Your task to perform on an android device: Search for "macbook pro" on amazon.com, select the first entry, add it to the cart, then select checkout. Image 0: 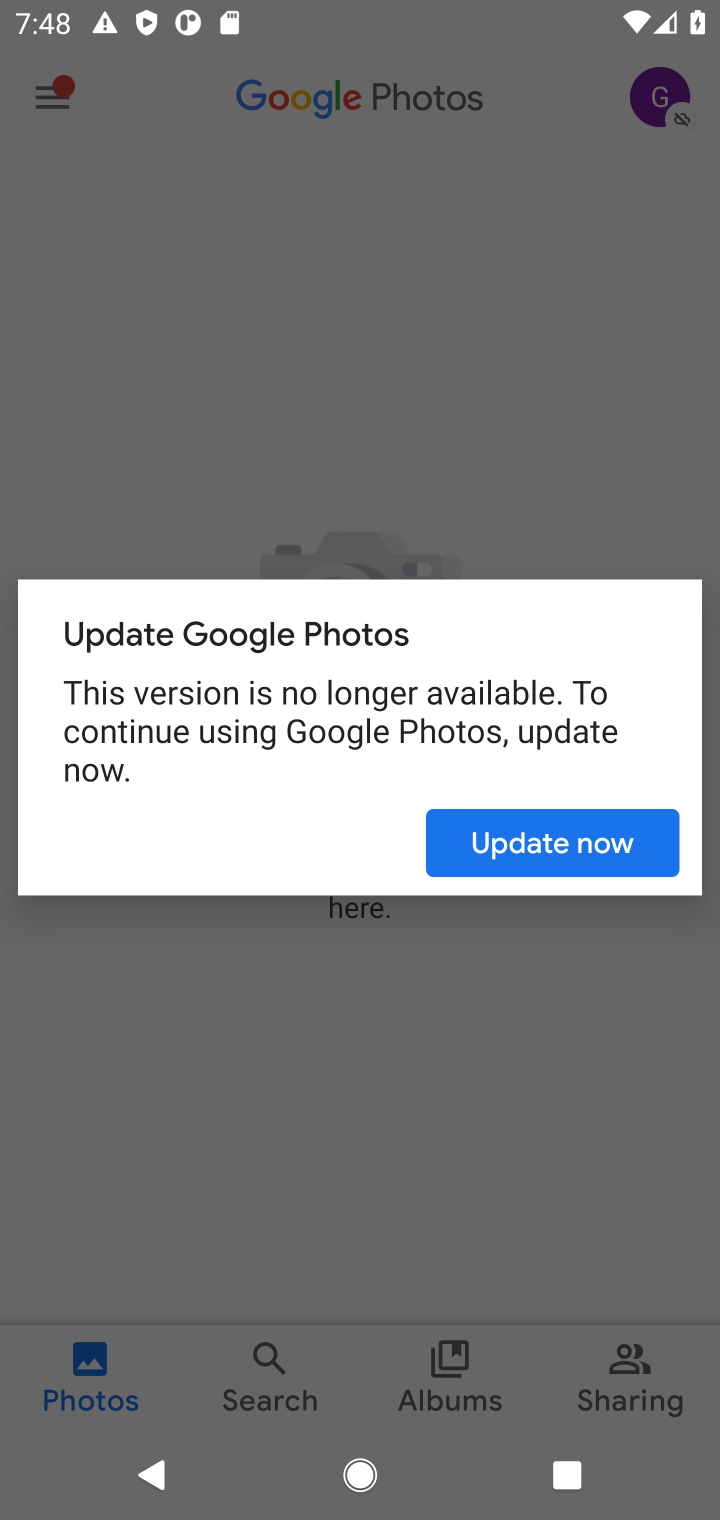
Step 0: press home button
Your task to perform on an android device: Search for "macbook pro" on amazon.com, select the first entry, add it to the cart, then select checkout. Image 1: 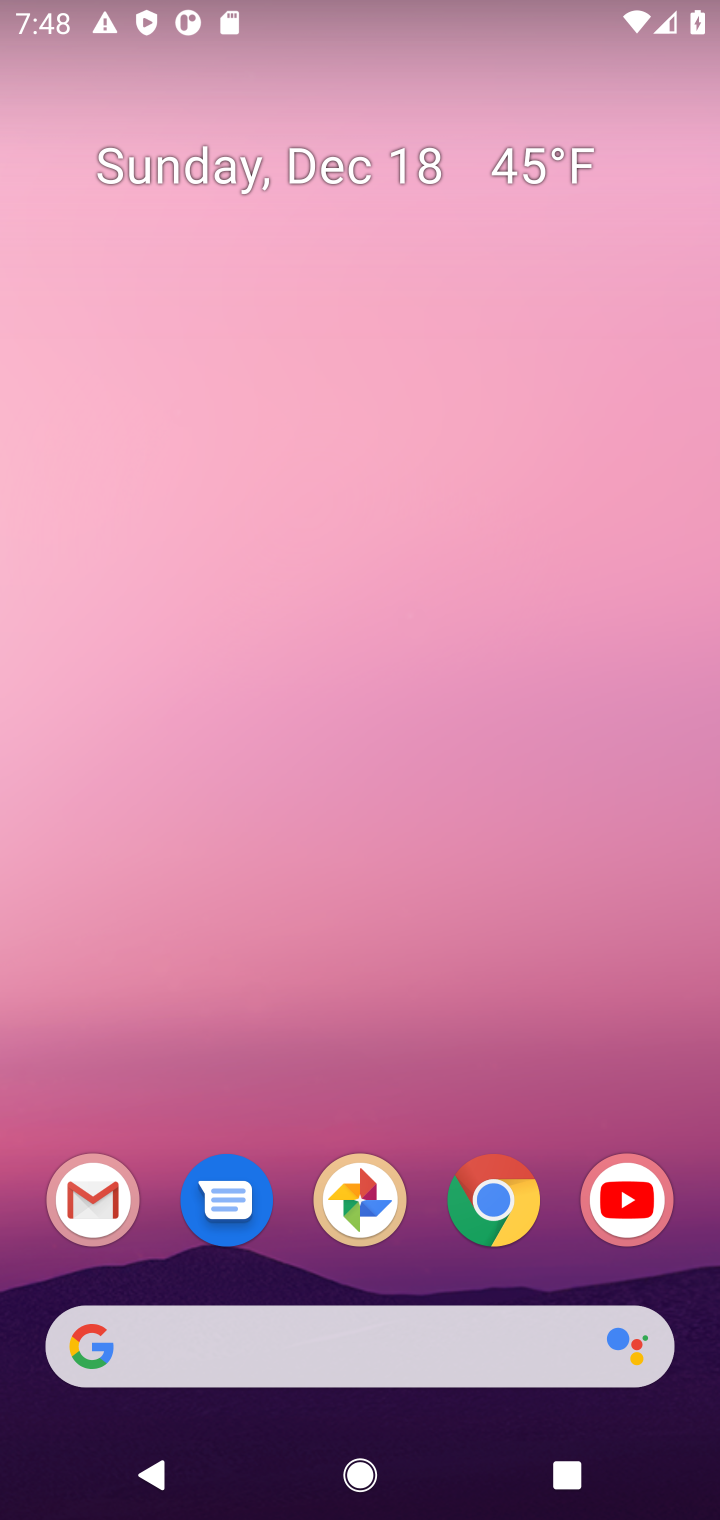
Step 1: click (494, 1204)
Your task to perform on an android device: Search for "macbook pro" on amazon.com, select the first entry, add it to the cart, then select checkout. Image 2: 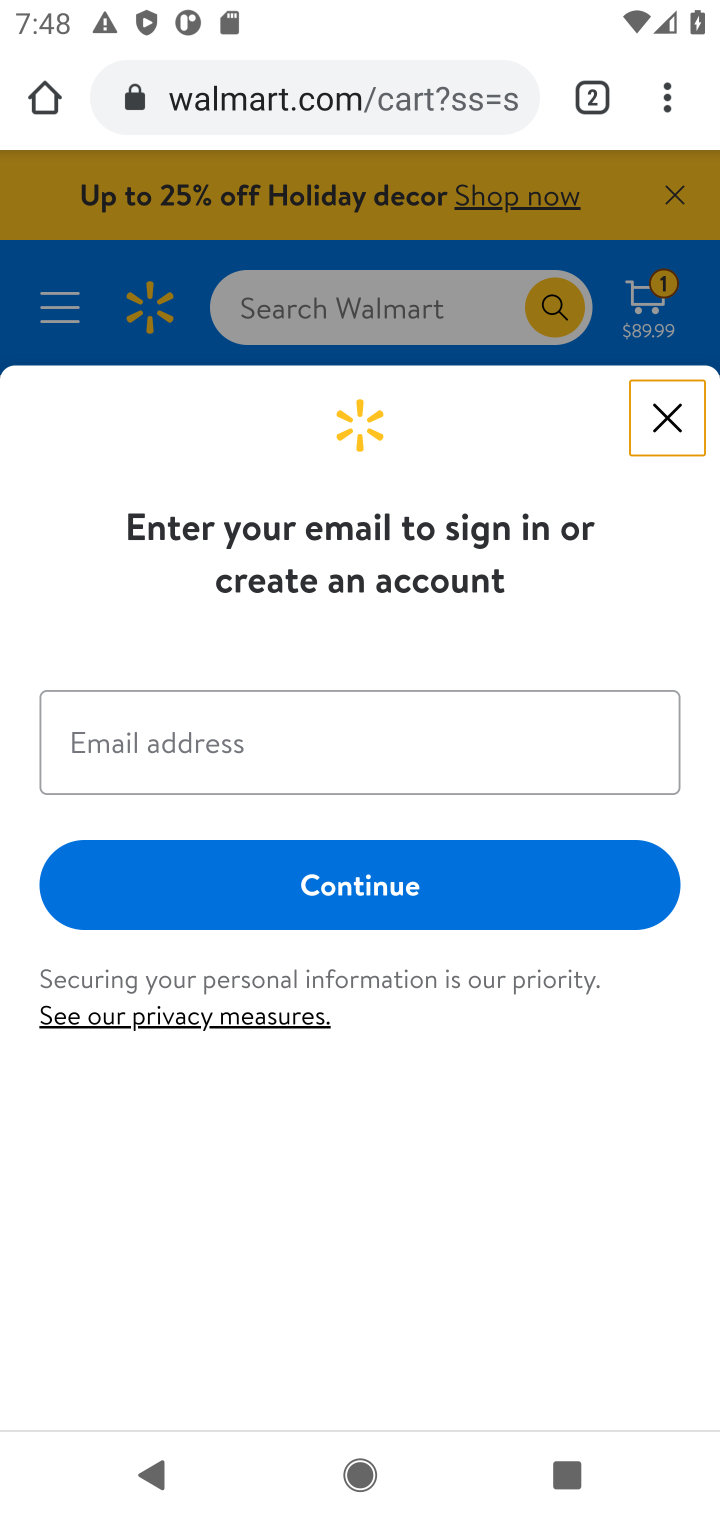
Step 2: click (281, 113)
Your task to perform on an android device: Search for "macbook pro" on amazon.com, select the first entry, add it to the cart, then select checkout. Image 3: 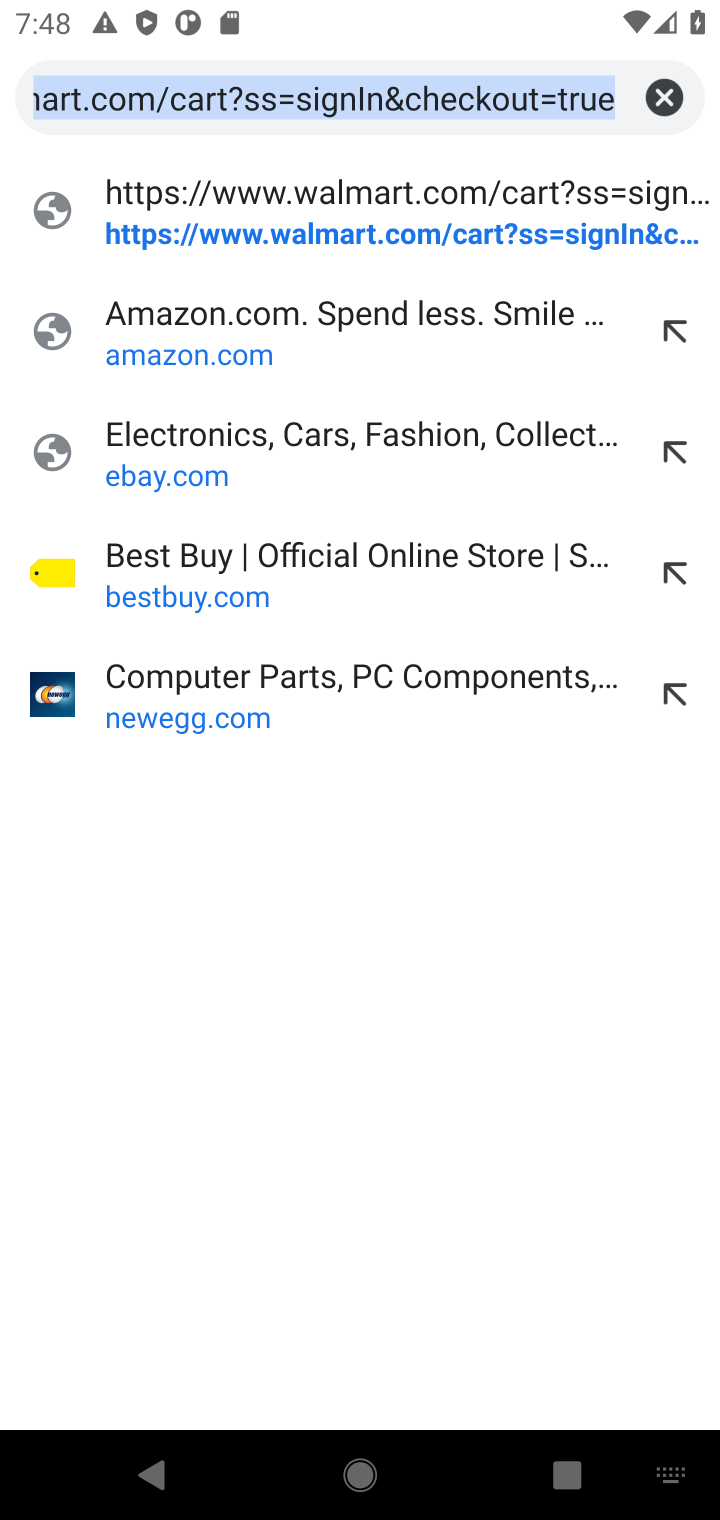
Step 3: click (175, 362)
Your task to perform on an android device: Search for "macbook pro" on amazon.com, select the first entry, add it to the cart, then select checkout. Image 4: 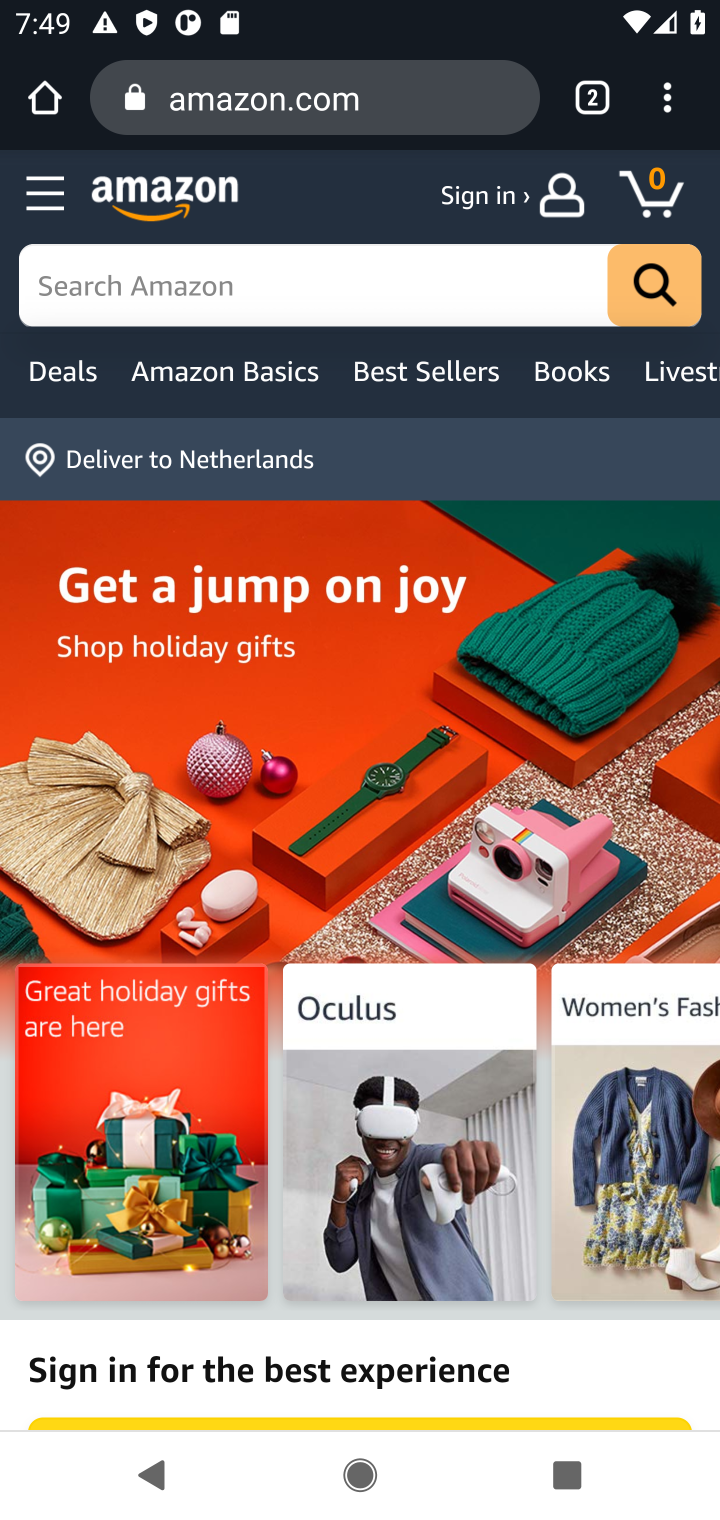
Step 4: click (87, 276)
Your task to perform on an android device: Search for "macbook pro" on amazon.com, select the first entry, add it to the cart, then select checkout. Image 5: 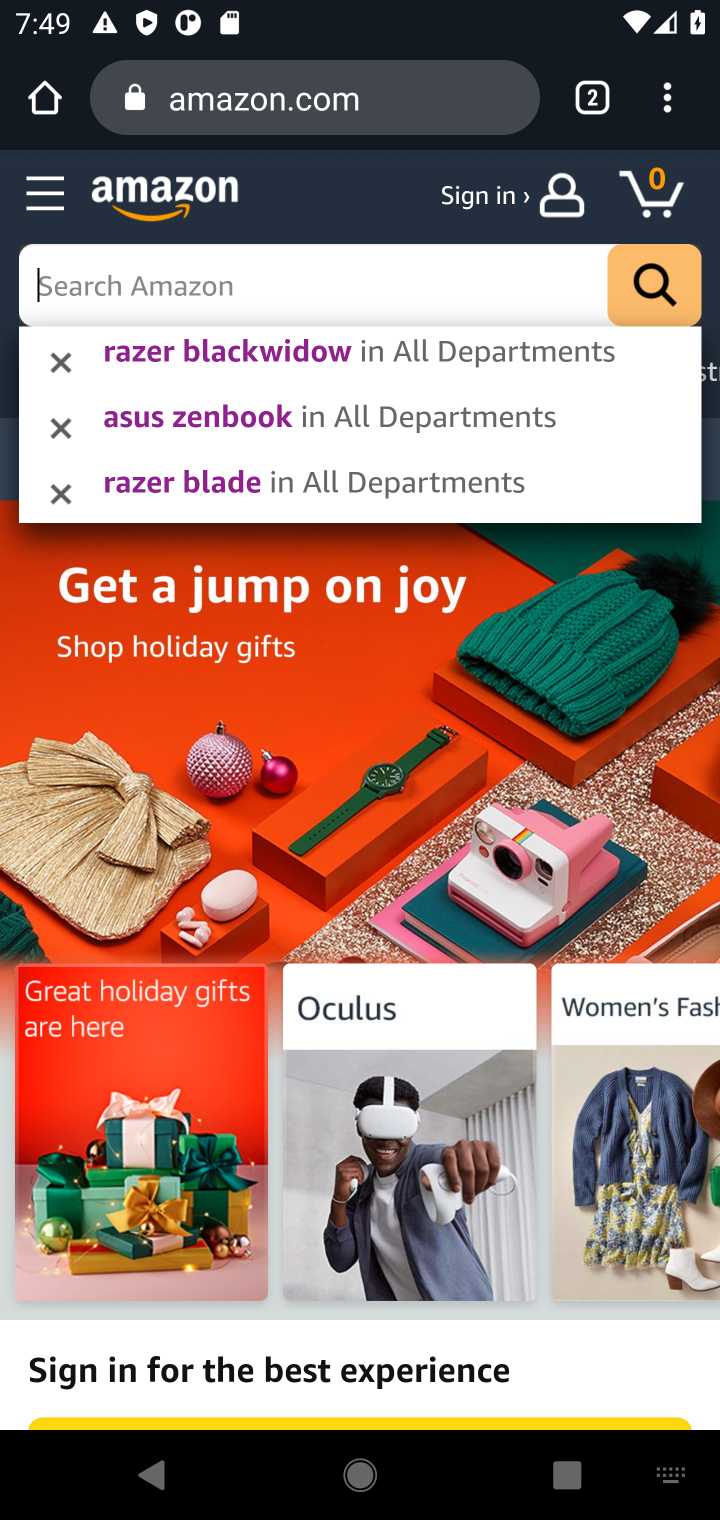
Step 5: type "macbook pro"
Your task to perform on an android device: Search for "macbook pro" on amazon.com, select the first entry, add it to the cart, then select checkout. Image 6: 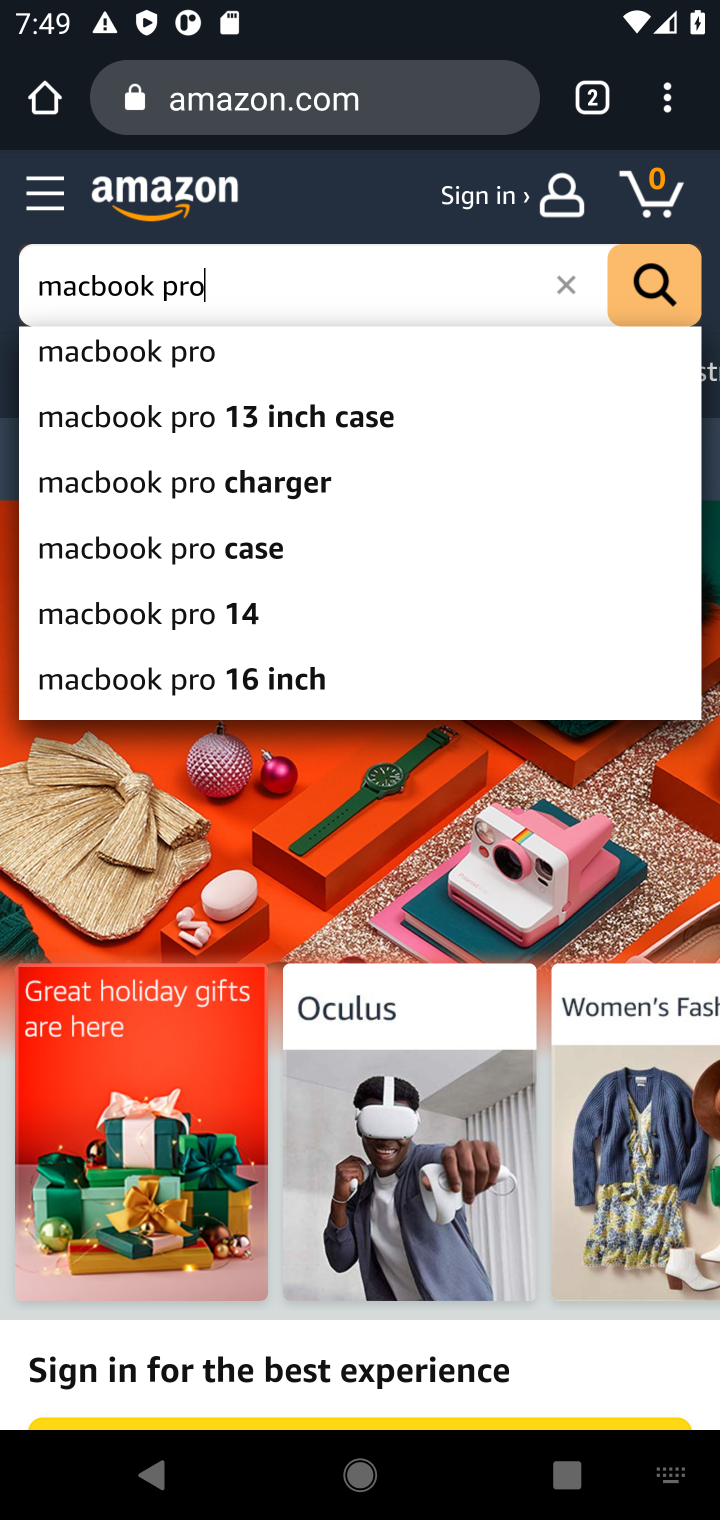
Step 6: click (135, 361)
Your task to perform on an android device: Search for "macbook pro" on amazon.com, select the first entry, add it to the cart, then select checkout. Image 7: 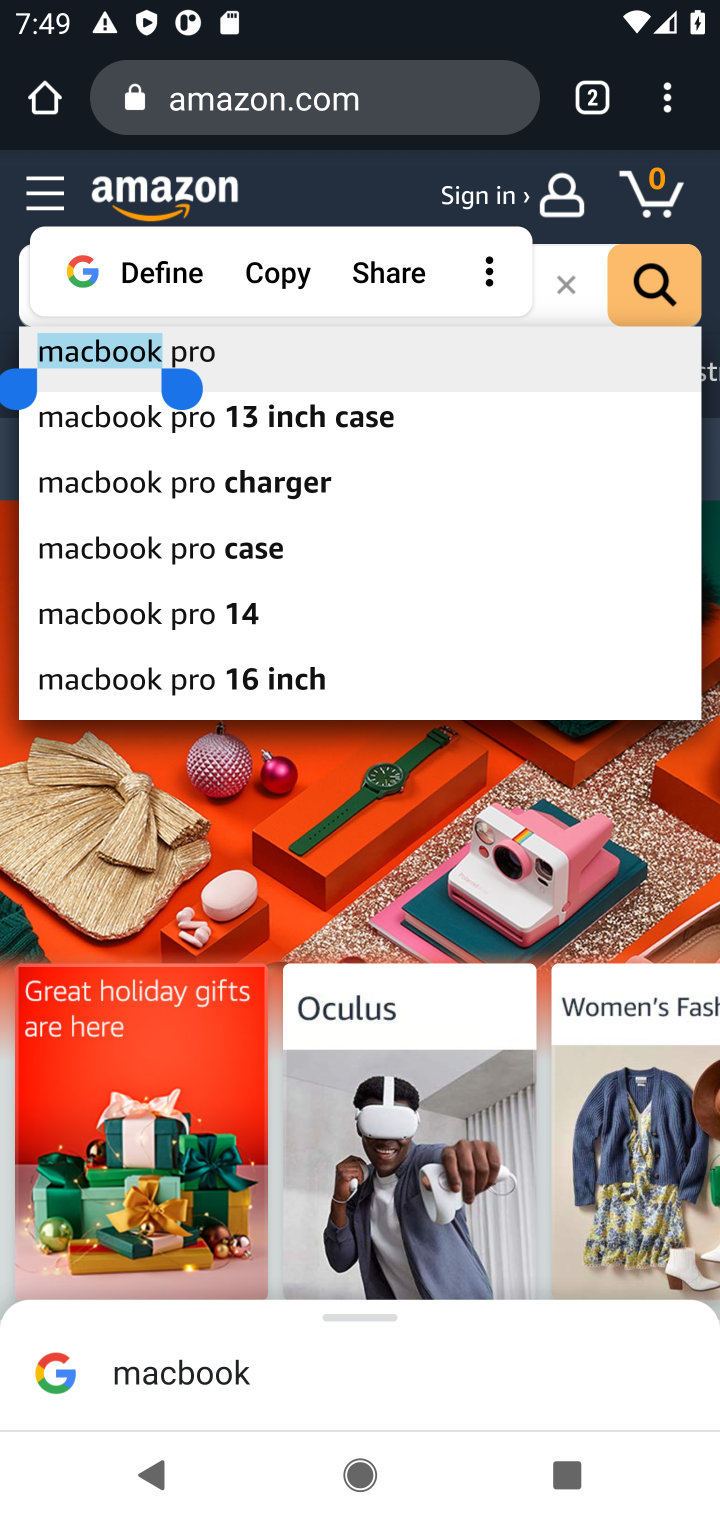
Step 7: click (197, 364)
Your task to perform on an android device: Search for "macbook pro" on amazon.com, select the first entry, add it to the cart, then select checkout. Image 8: 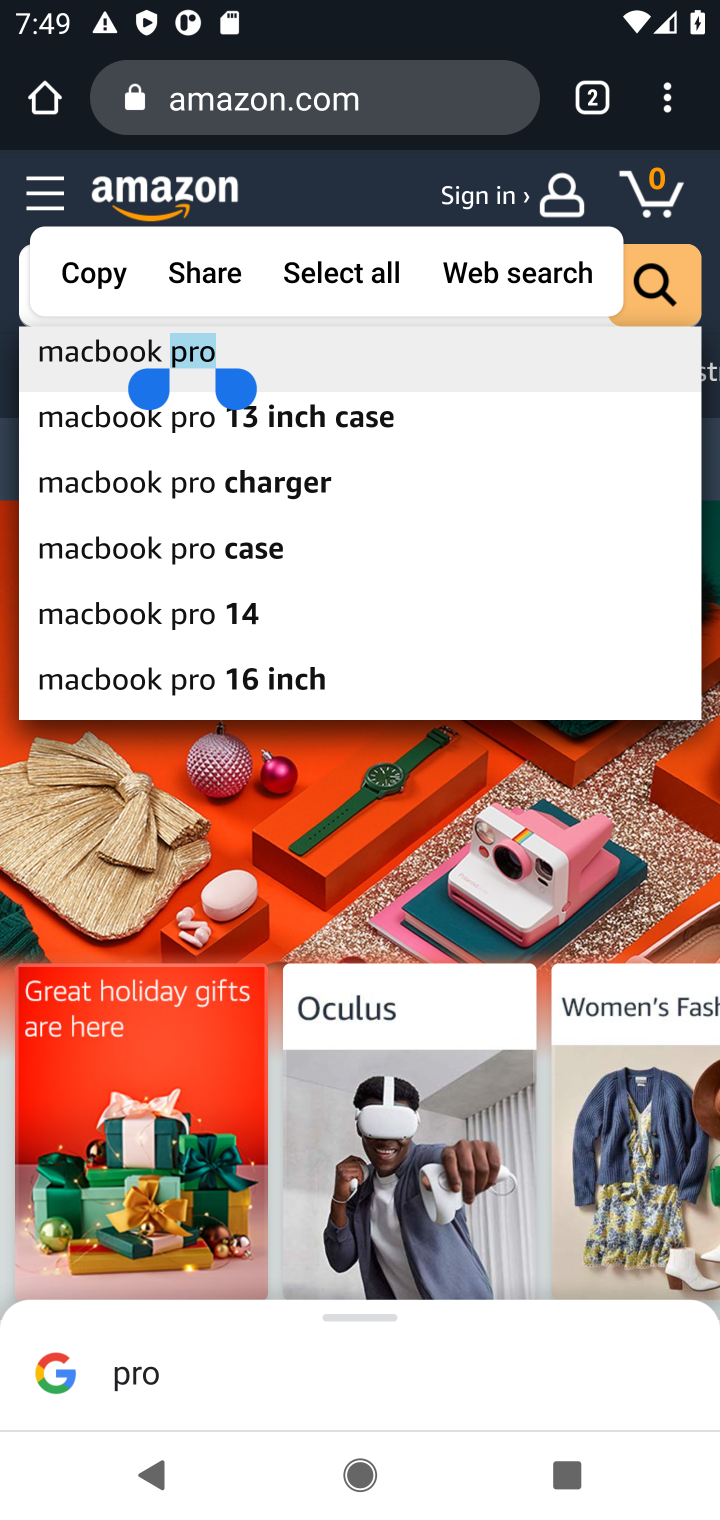
Step 8: click (103, 357)
Your task to perform on an android device: Search for "macbook pro" on amazon.com, select the first entry, add it to the cart, then select checkout. Image 9: 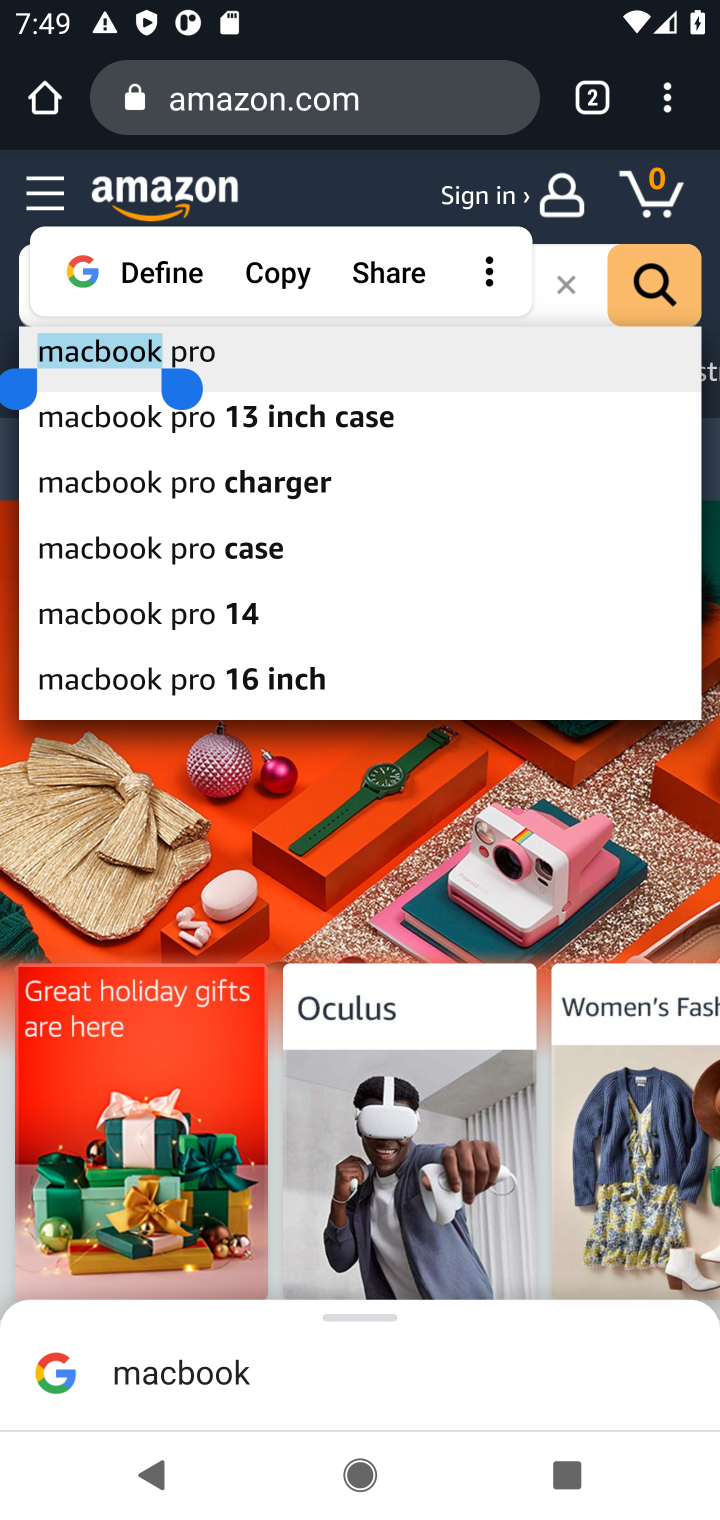
Step 9: click (214, 372)
Your task to perform on an android device: Search for "macbook pro" on amazon.com, select the first entry, add it to the cart, then select checkout. Image 10: 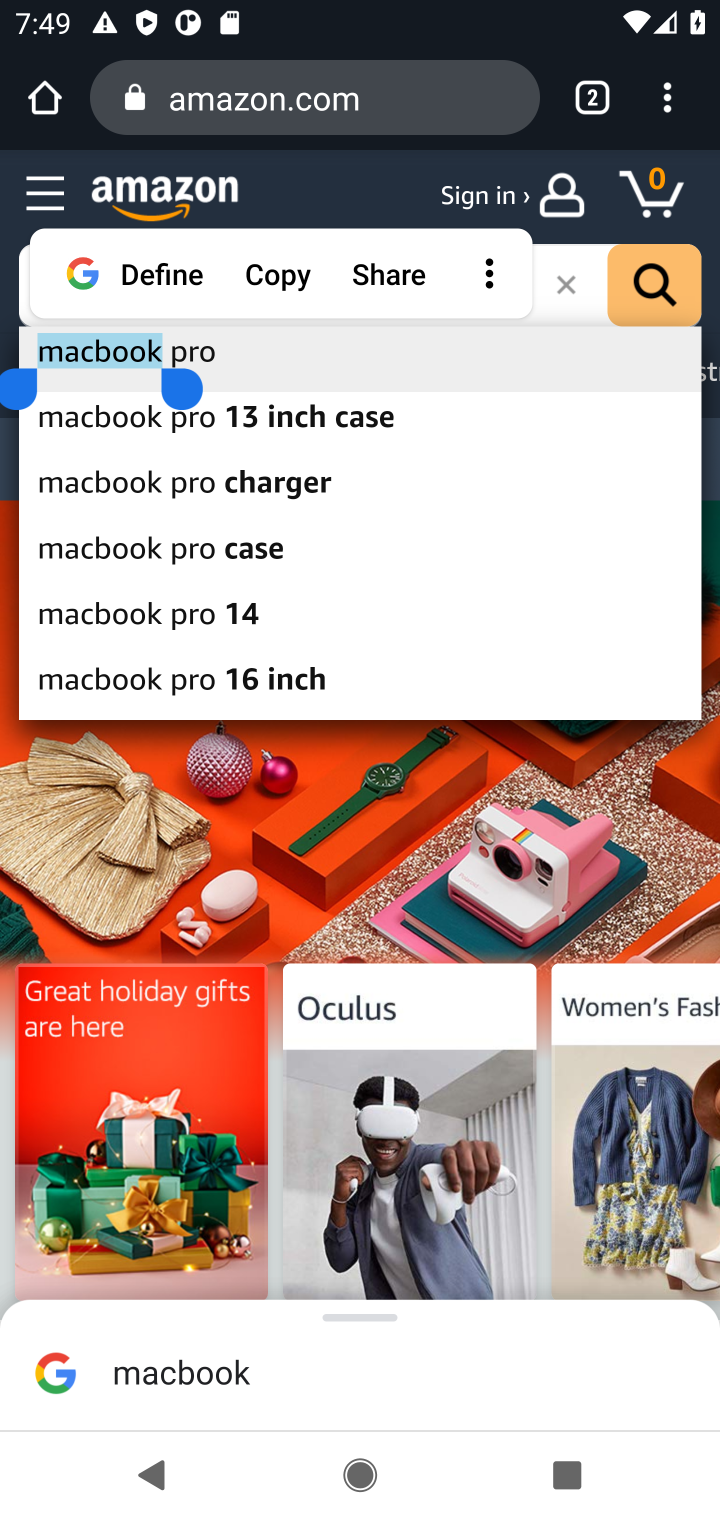
Step 10: click (654, 291)
Your task to perform on an android device: Search for "macbook pro" on amazon.com, select the first entry, add it to the cart, then select checkout. Image 11: 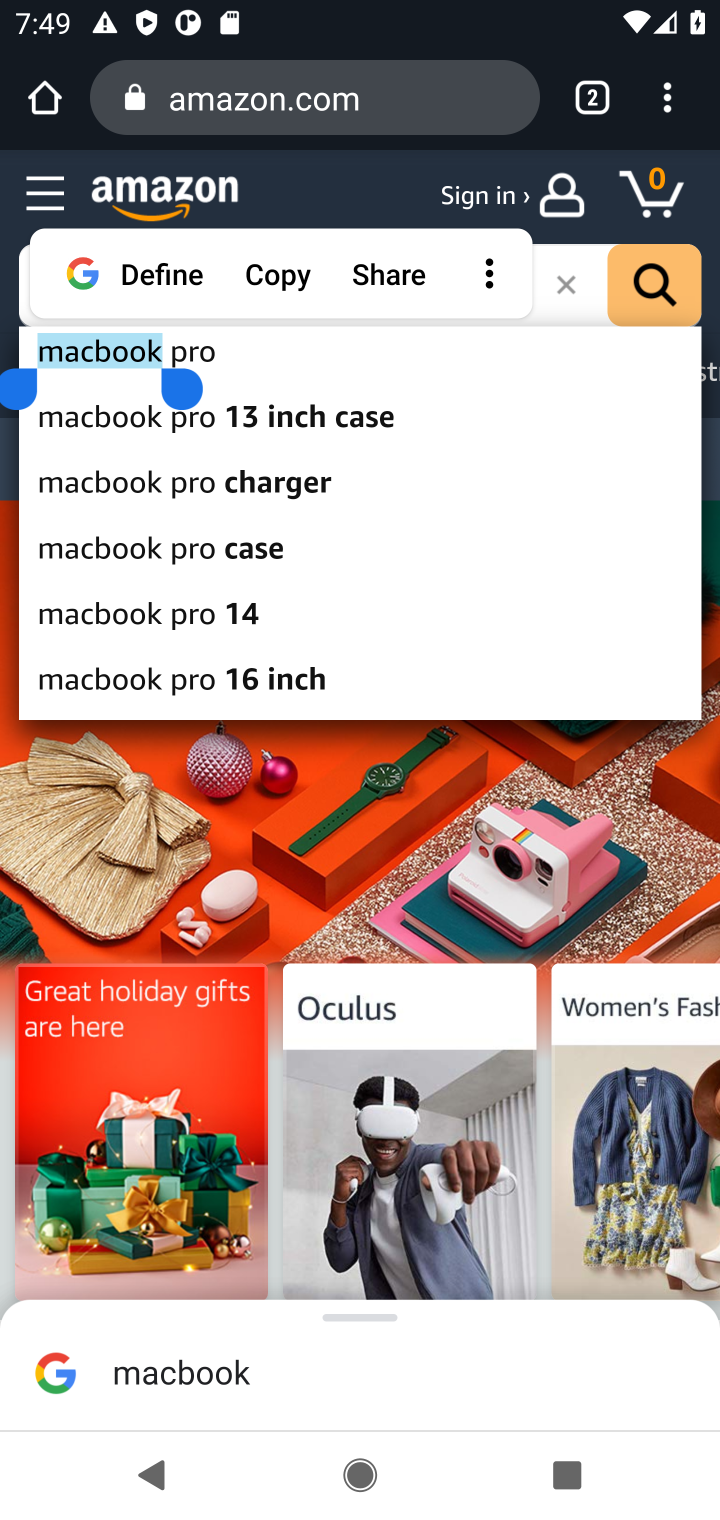
Step 11: click (195, 363)
Your task to perform on an android device: Search for "macbook pro" on amazon.com, select the first entry, add it to the cart, then select checkout. Image 12: 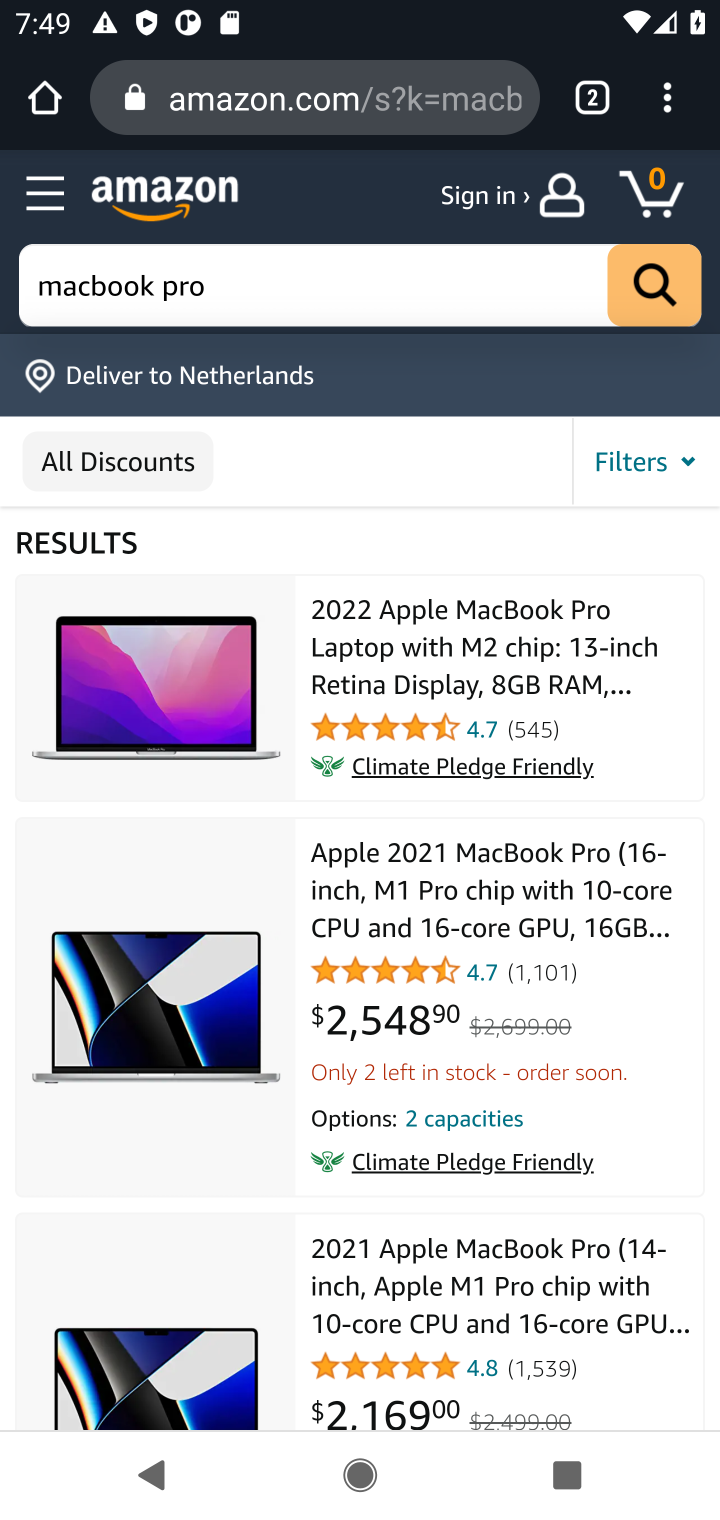
Step 12: click (413, 680)
Your task to perform on an android device: Search for "macbook pro" on amazon.com, select the first entry, add it to the cart, then select checkout. Image 13: 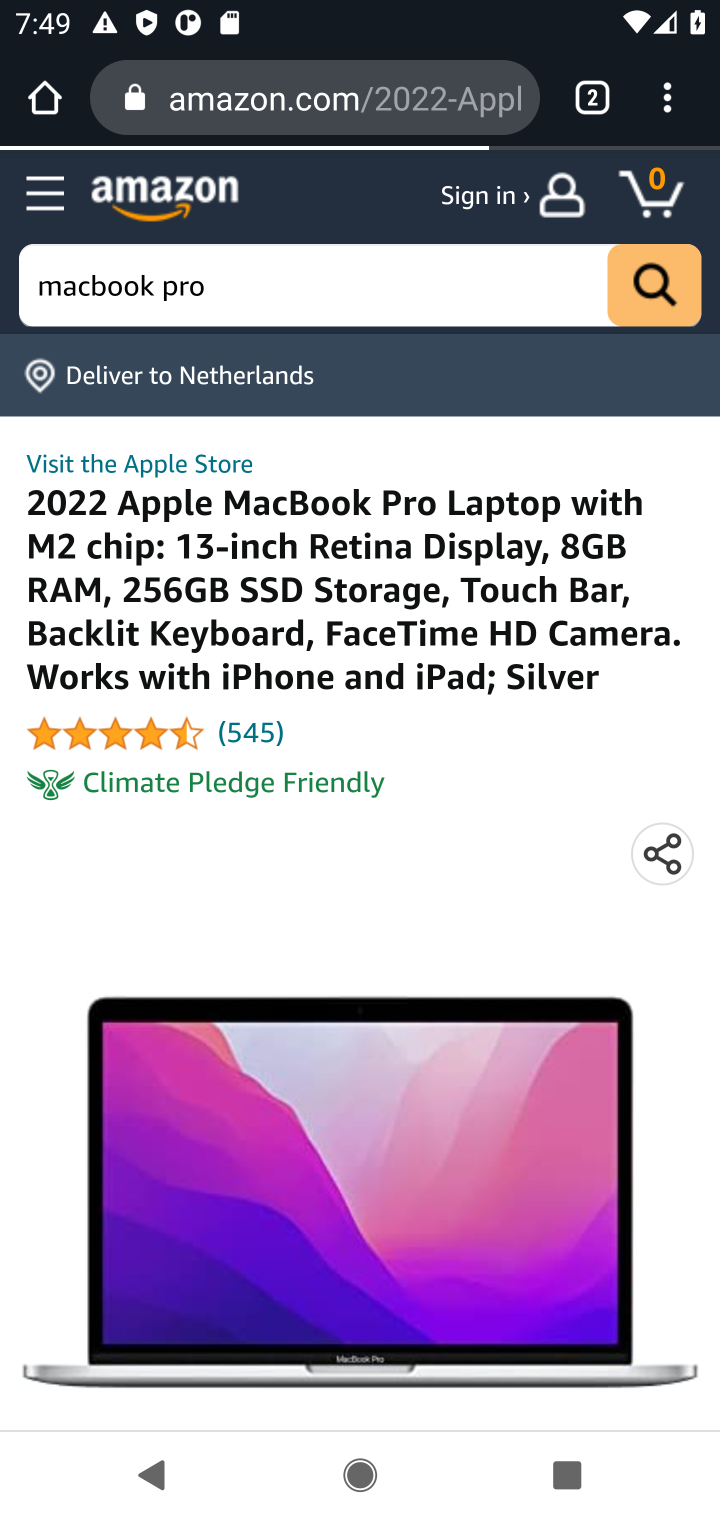
Step 13: task complete